Your task to perform on an android device: uninstall "Google Play services" Image 0: 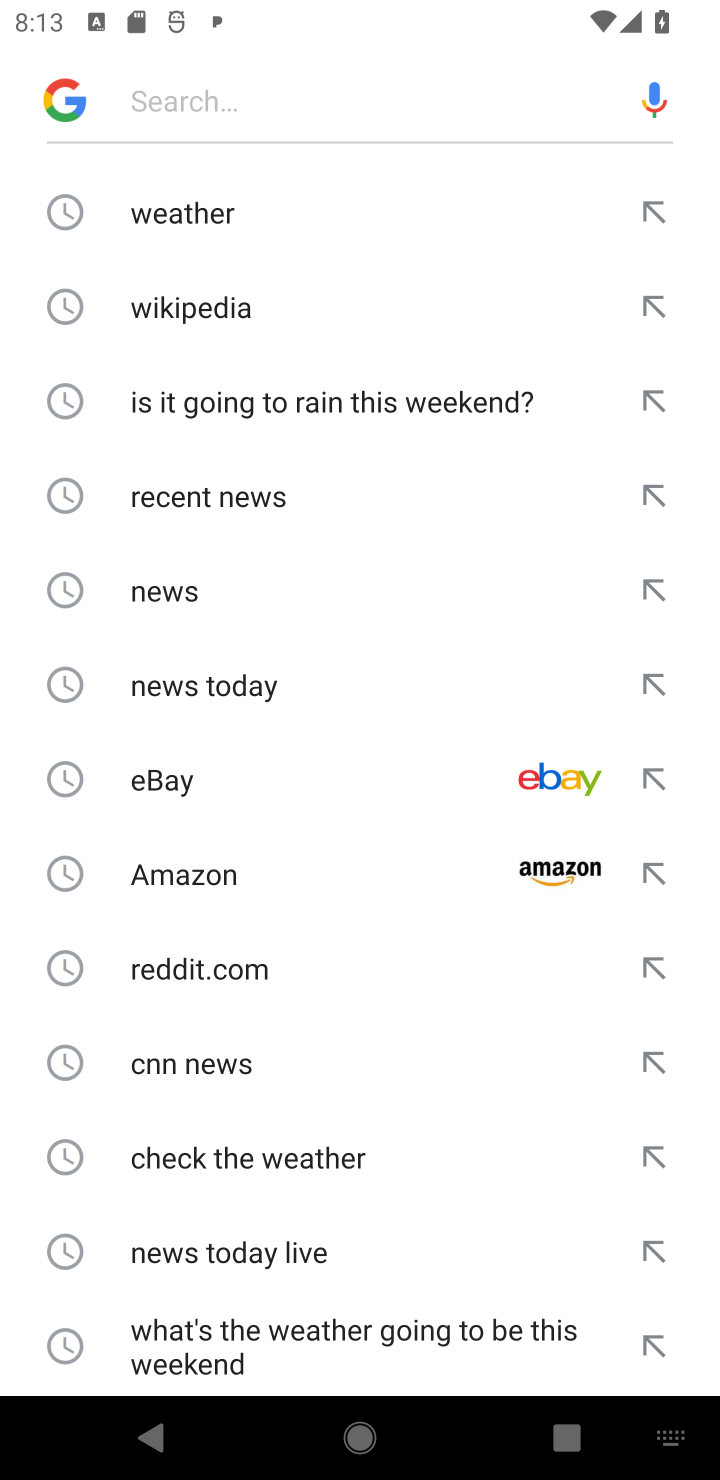
Step 0: press home button
Your task to perform on an android device: uninstall "Google Play services" Image 1: 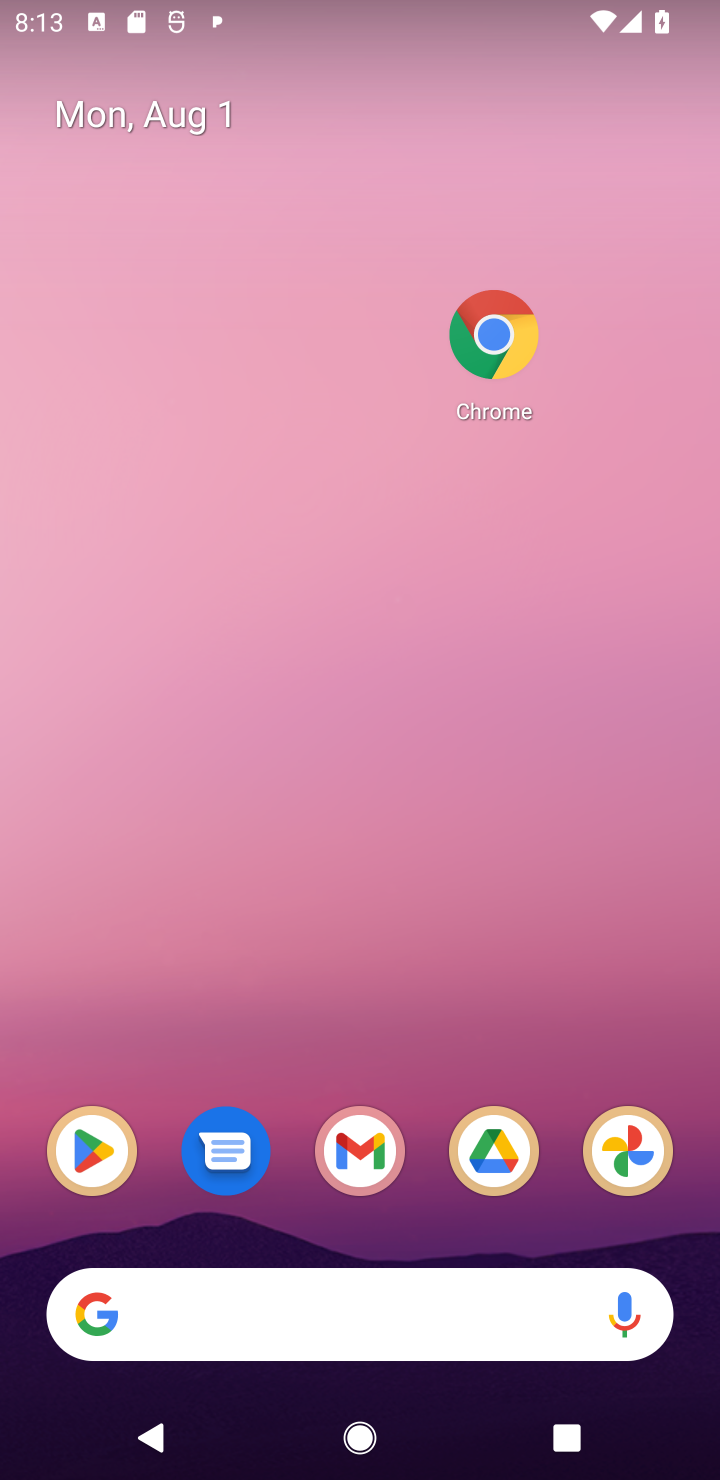
Step 1: click (83, 1140)
Your task to perform on an android device: uninstall "Google Play services" Image 2: 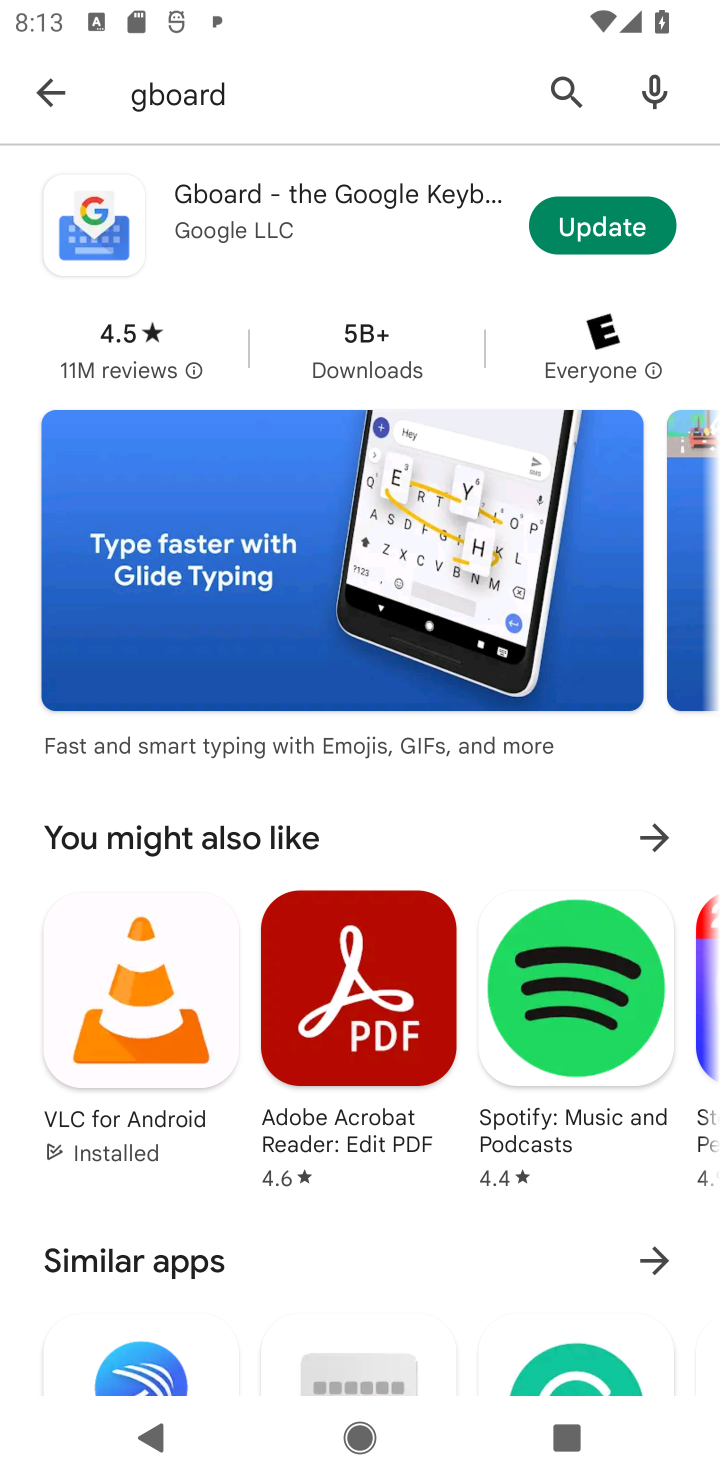
Step 2: click (566, 96)
Your task to perform on an android device: uninstall "Google Play services" Image 3: 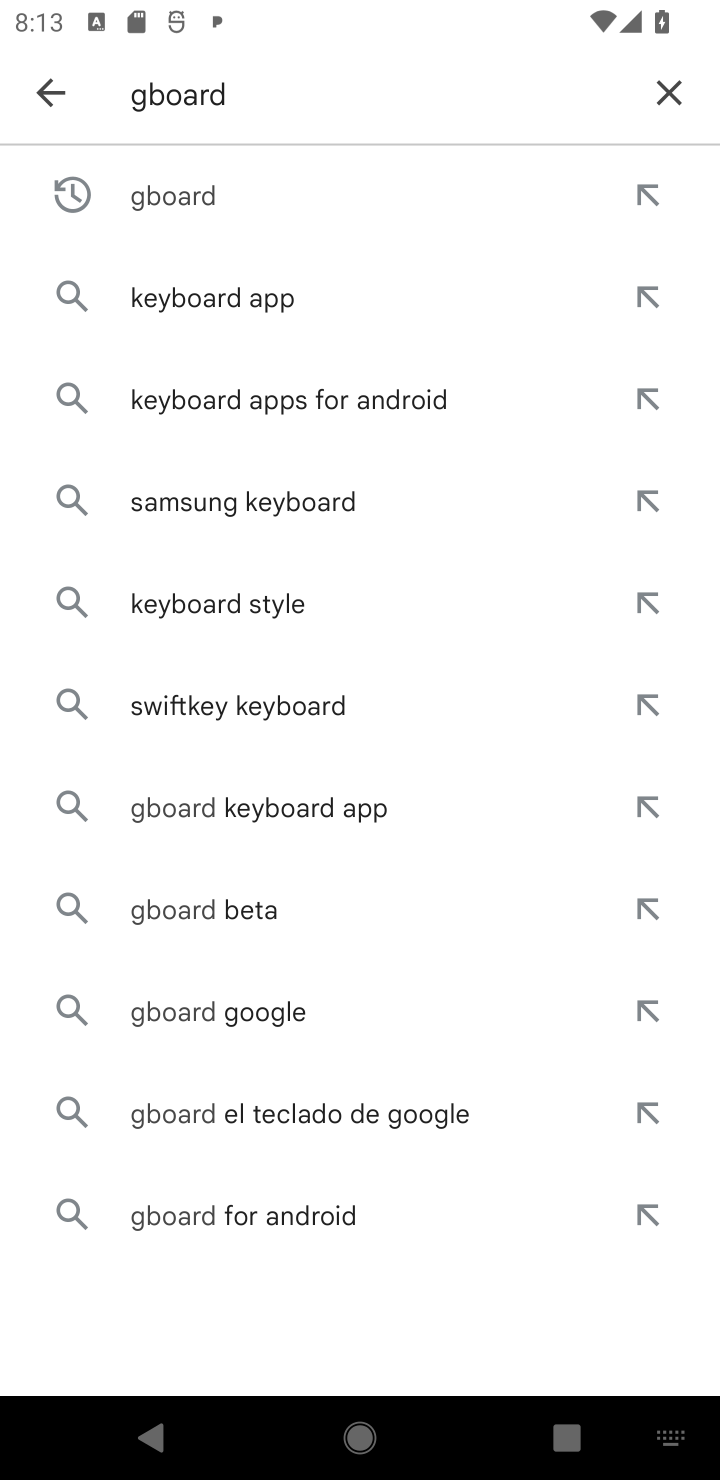
Step 3: click (671, 93)
Your task to perform on an android device: uninstall "Google Play services" Image 4: 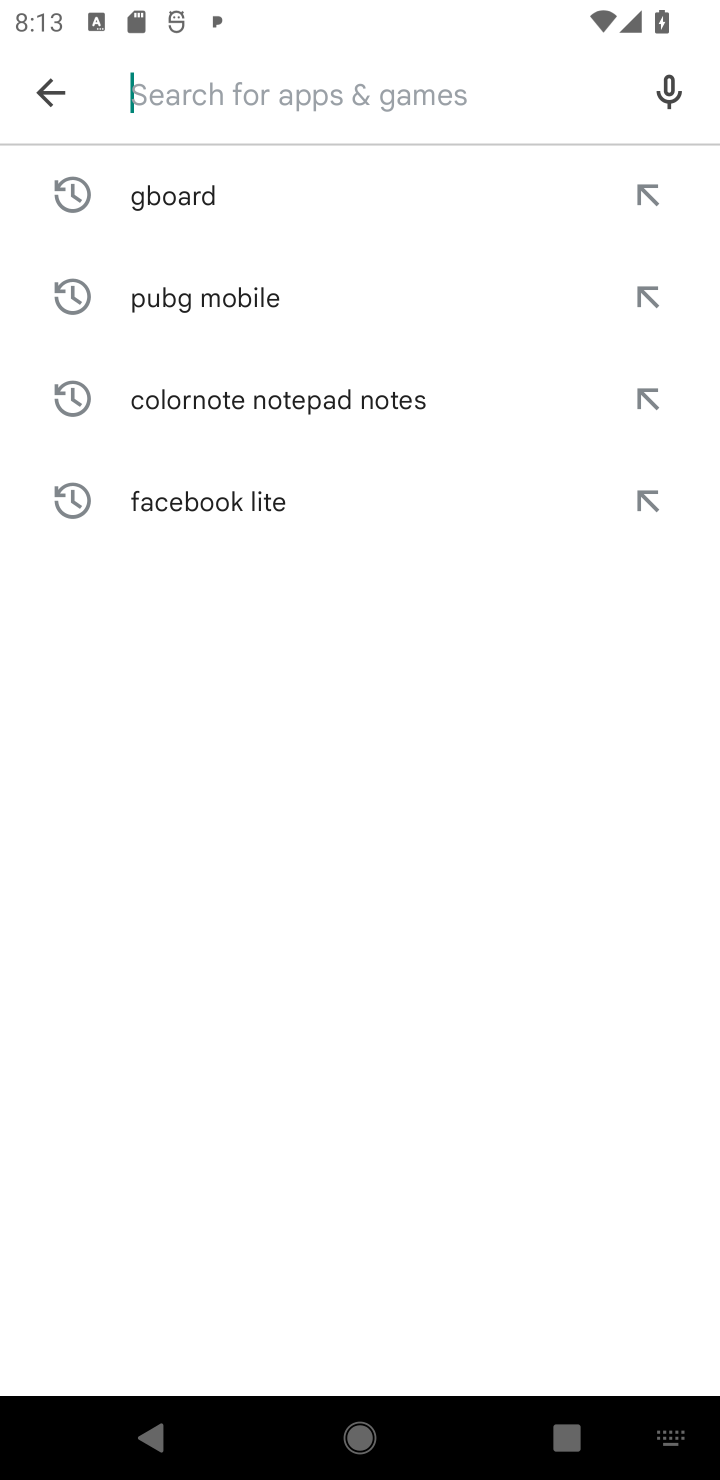
Step 4: type "Google Play services"
Your task to perform on an android device: uninstall "Google Play services" Image 5: 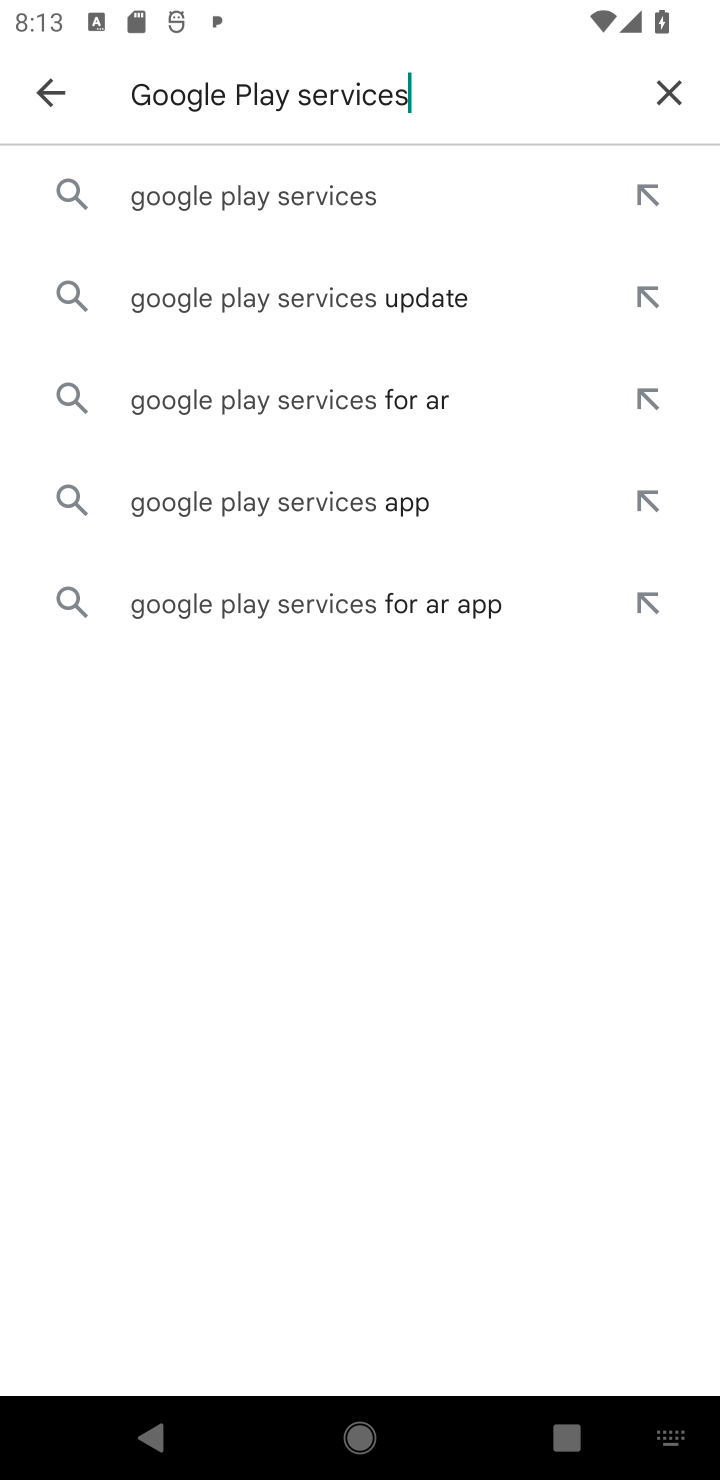
Step 5: click (201, 216)
Your task to perform on an android device: uninstall "Google Play services" Image 6: 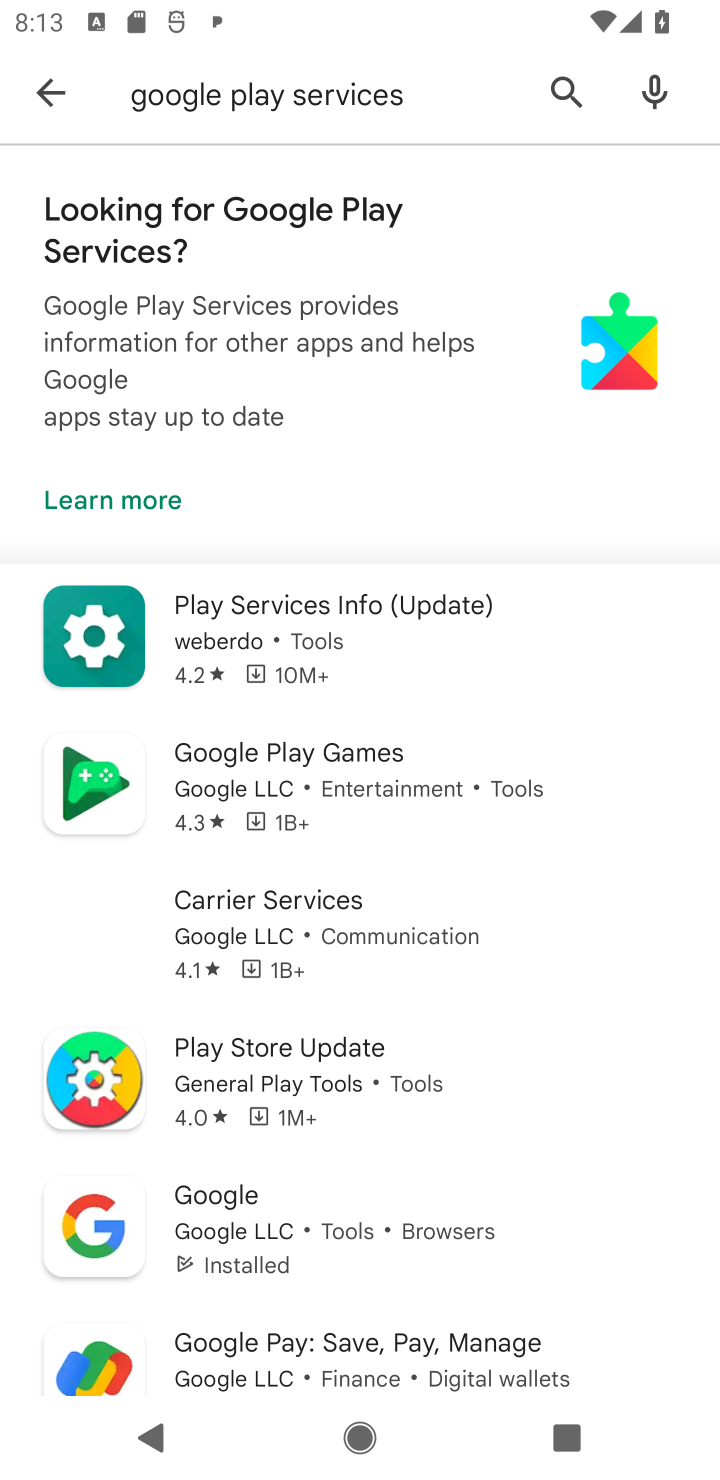
Step 6: drag from (305, 1116) to (218, 487)
Your task to perform on an android device: uninstall "Google Play services" Image 7: 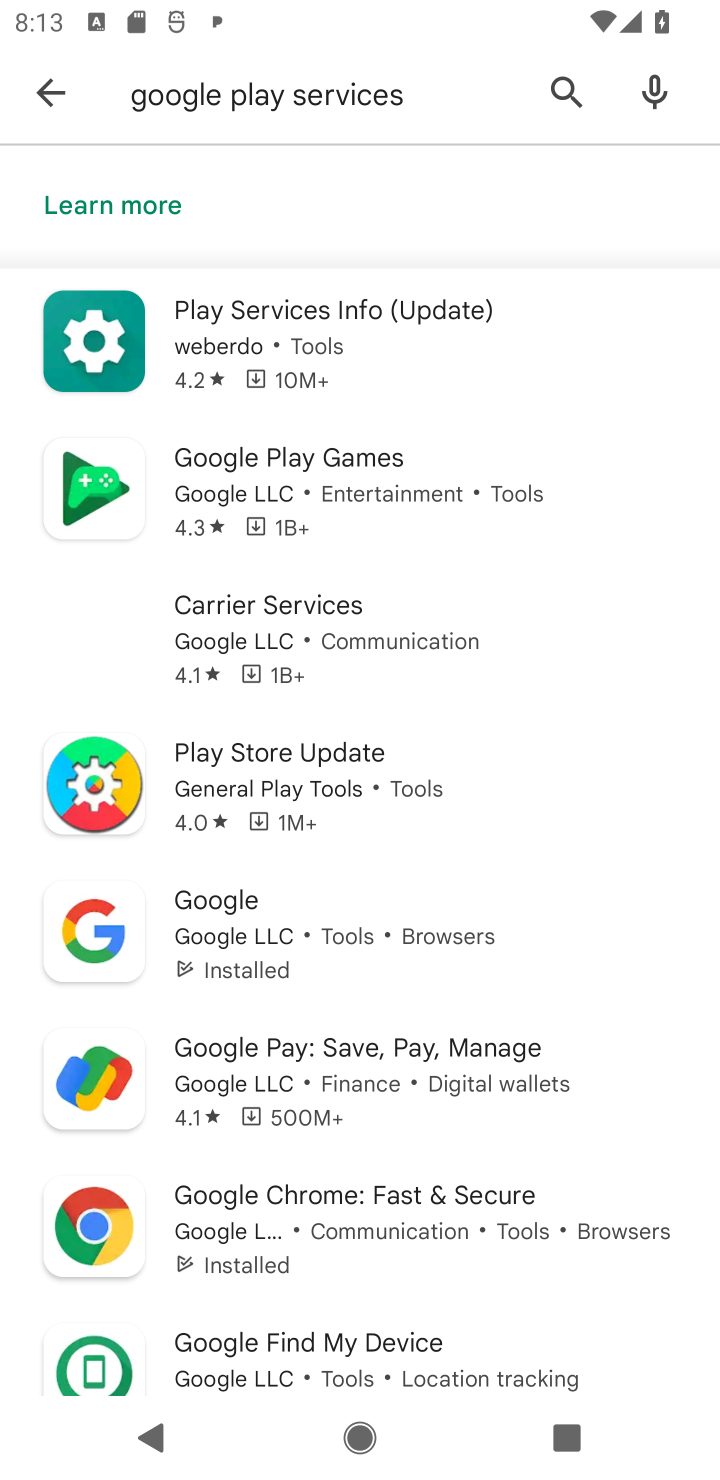
Step 7: drag from (213, 986) to (163, 219)
Your task to perform on an android device: uninstall "Google Play services" Image 8: 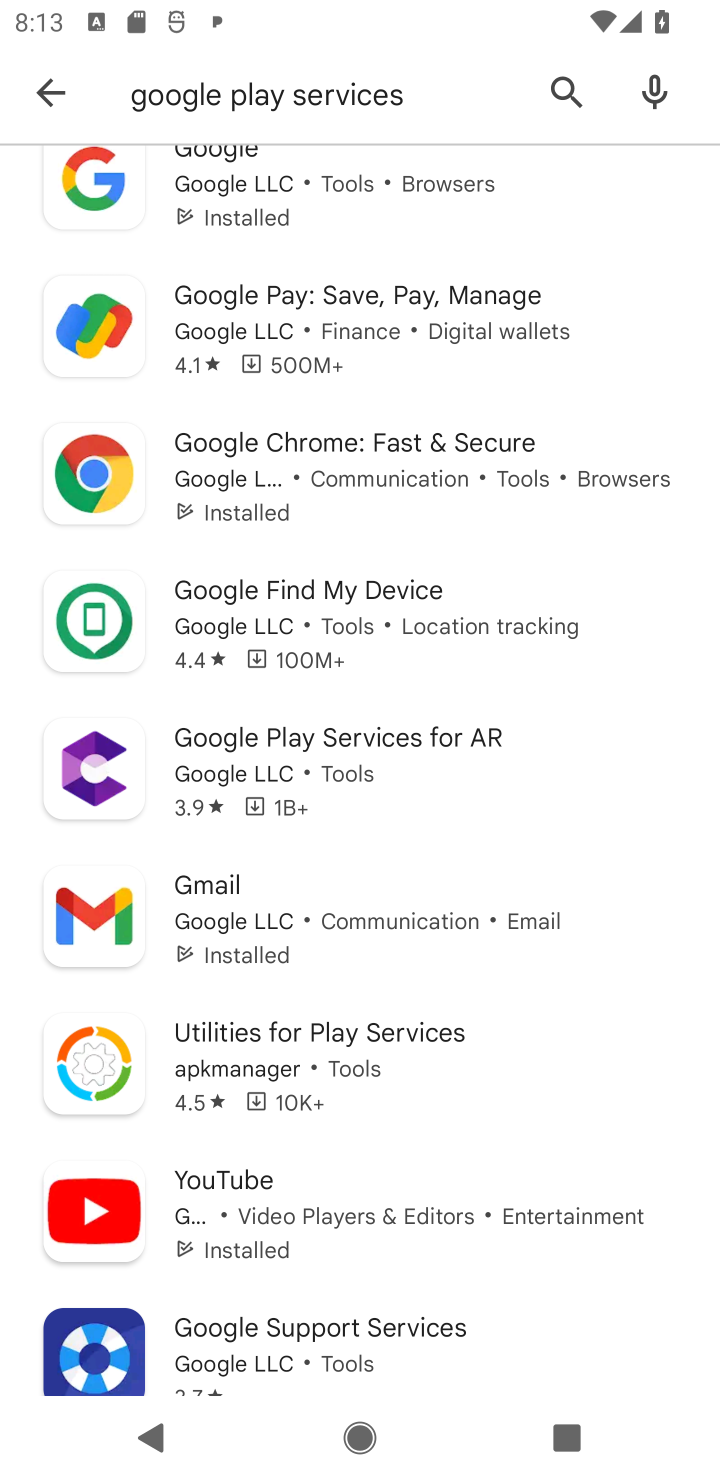
Step 8: click (202, 787)
Your task to perform on an android device: uninstall "Google Play services" Image 9: 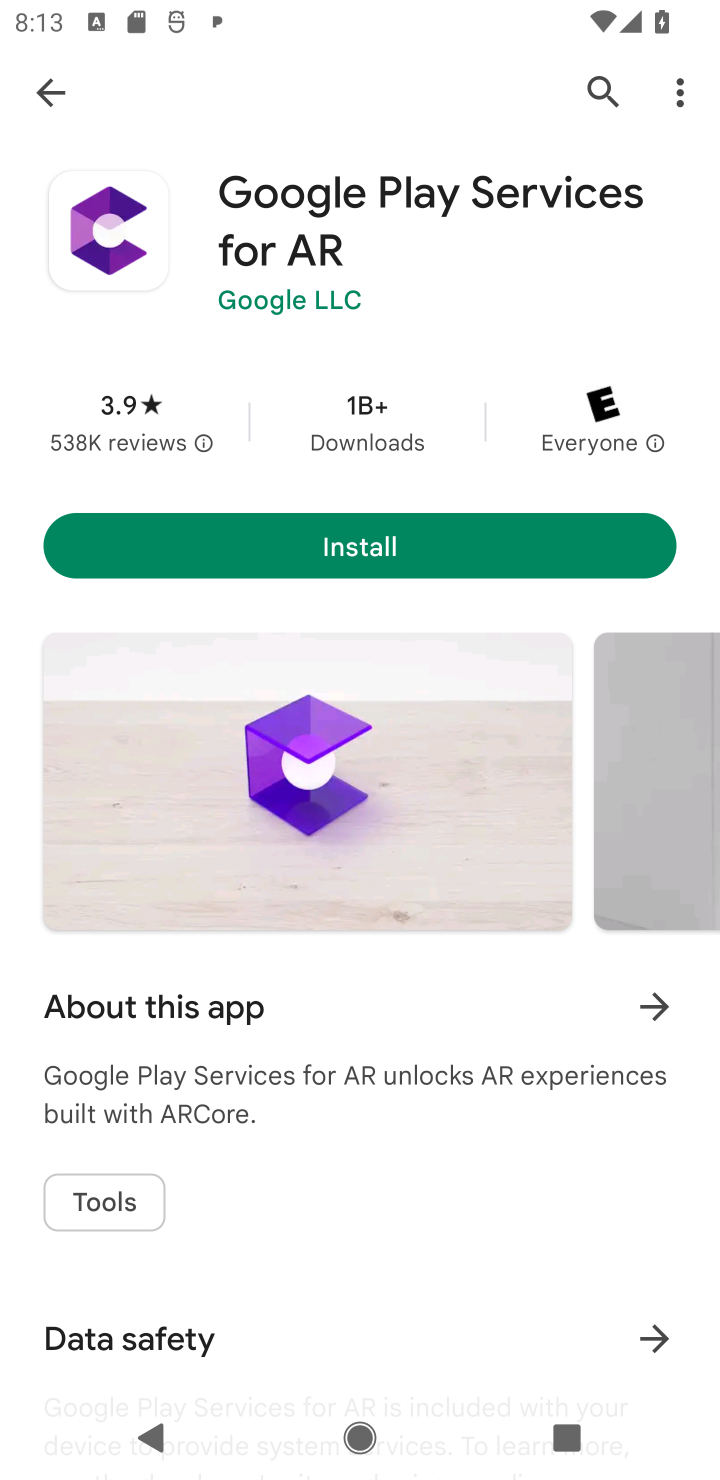
Step 9: task complete